Your task to perform on an android device: allow cookies in the chrome app Image 0: 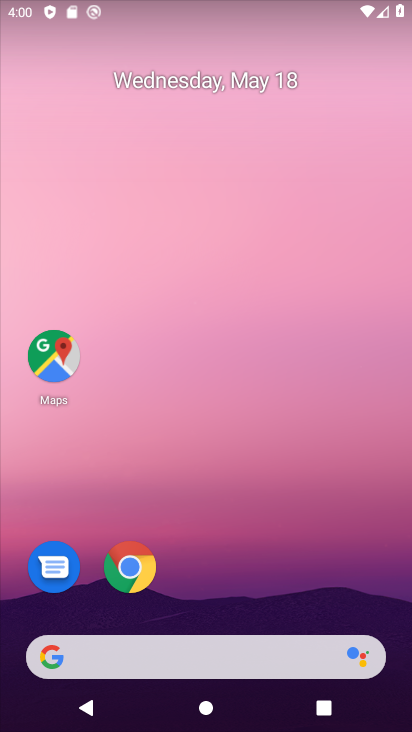
Step 0: press home button
Your task to perform on an android device: allow cookies in the chrome app Image 1: 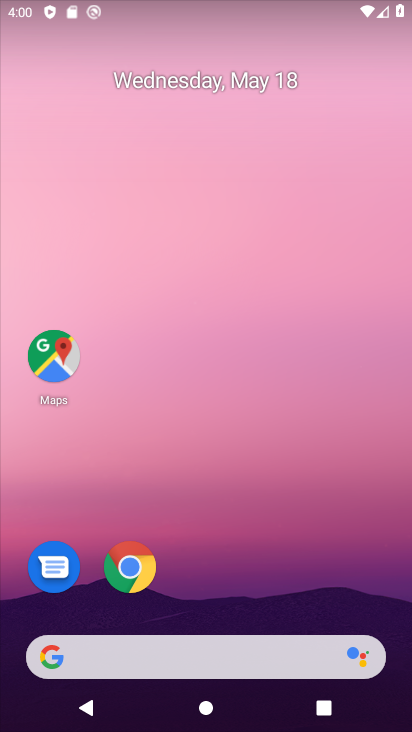
Step 1: click (145, 563)
Your task to perform on an android device: allow cookies in the chrome app Image 2: 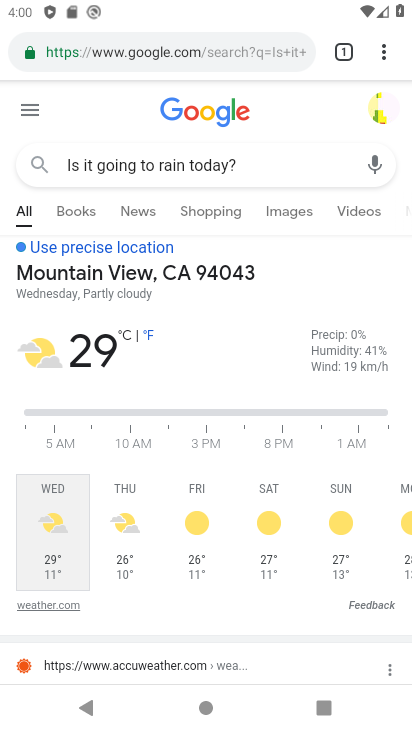
Step 2: drag from (383, 45) to (219, 589)
Your task to perform on an android device: allow cookies in the chrome app Image 3: 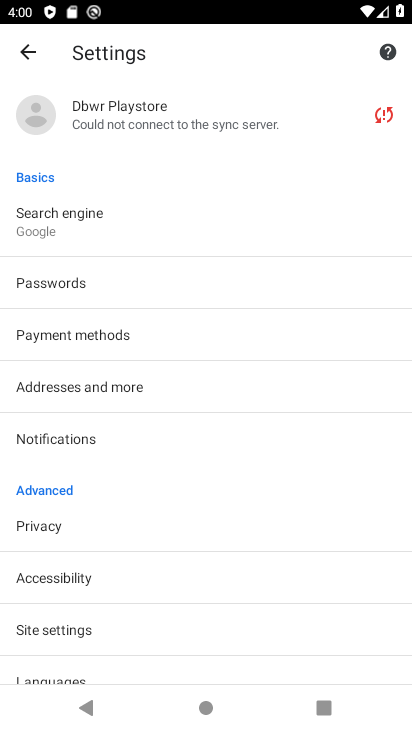
Step 3: click (71, 630)
Your task to perform on an android device: allow cookies in the chrome app Image 4: 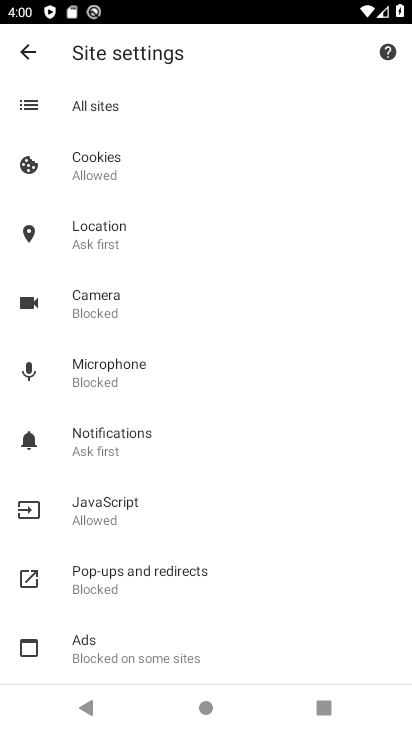
Step 4: click (86, 171)
Your task to perform on an android device: allow cookies in the chrome app Image 5: 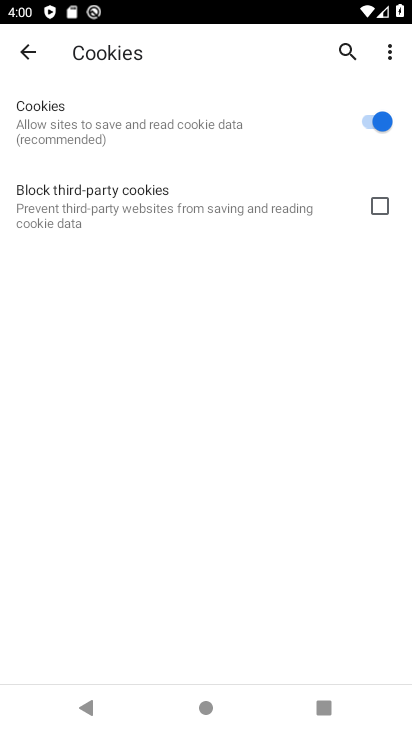
Step 5: task complete